Your task to perform on an android device: turn on wifi Image 0: 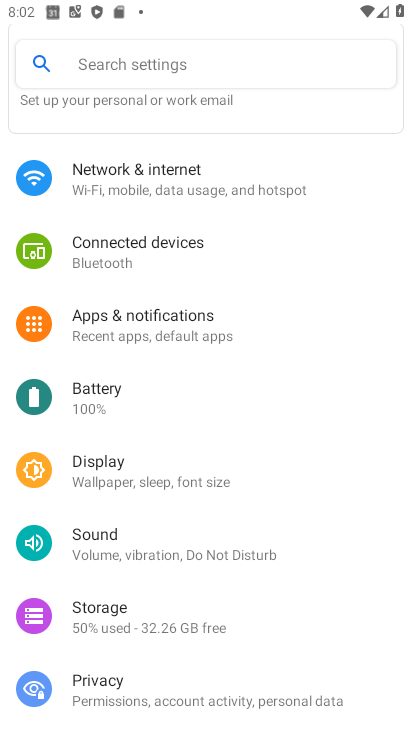
Step 0: click (135, 158)
Your task to perform on an android device: turn on wifi Image 1: 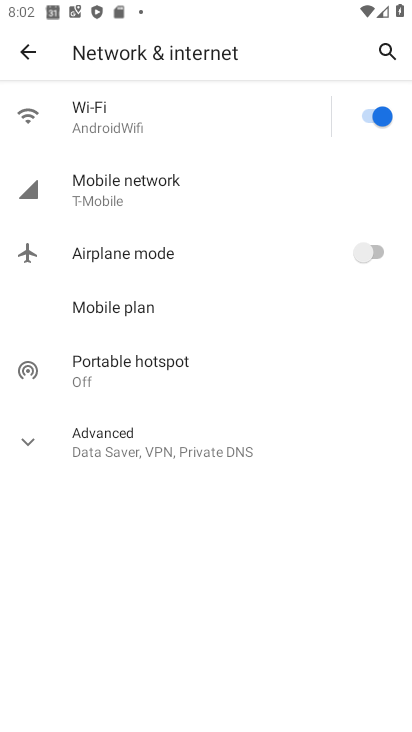
Step 1: task complete